Your task to perform on an android device: Open network settings Image 0: 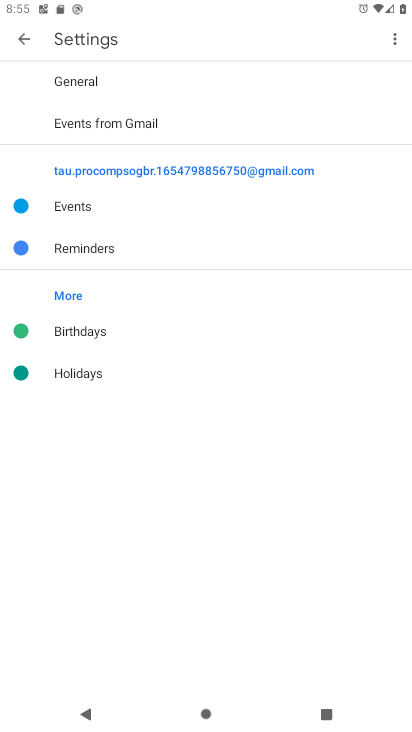
Step 0: press home button
Your task to perform on an android device: Open network settings Image 1: 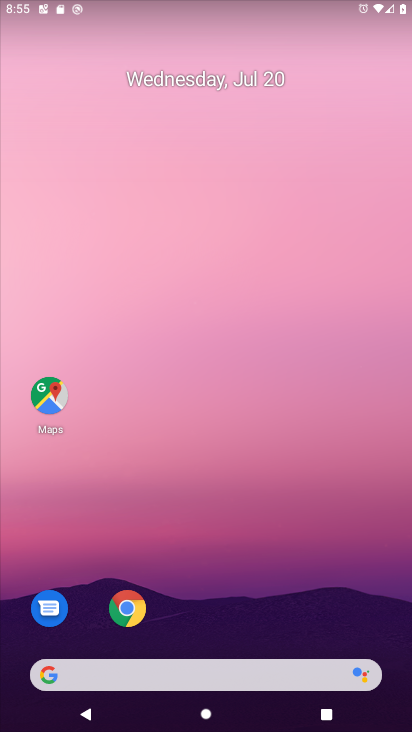
Step 1: drag from (205, 638) to (231, 295)
Your task to perform on an android device: Open network settings Image 2: 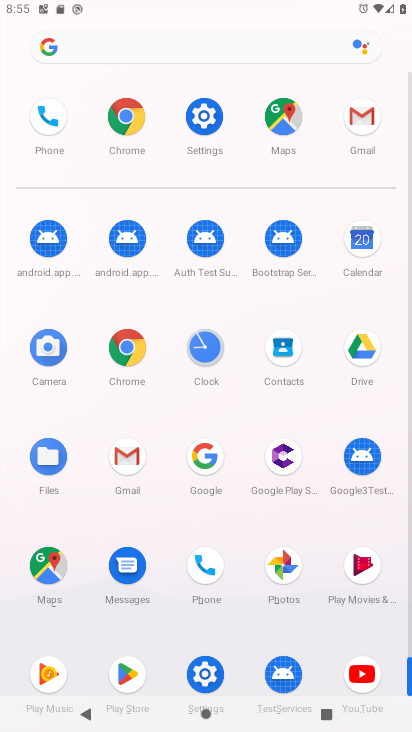
Step 2: click (215, 113)
Your task to perform on an android device: Open network settings Image 3: 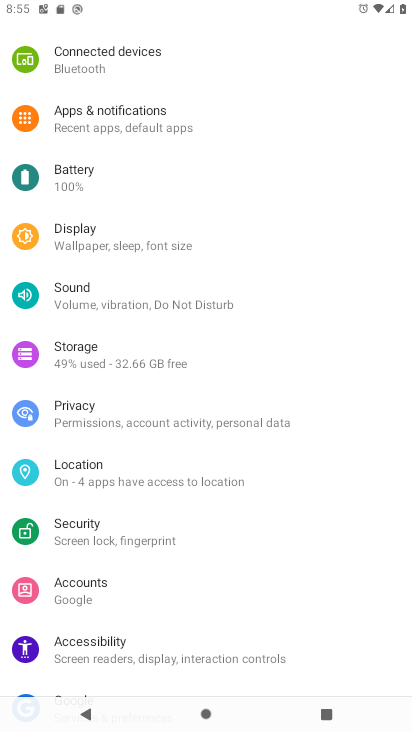
Step 3: drag from (133, 73) to (112, 499)
Your task to perform on an android device: Open network settings Image 4: 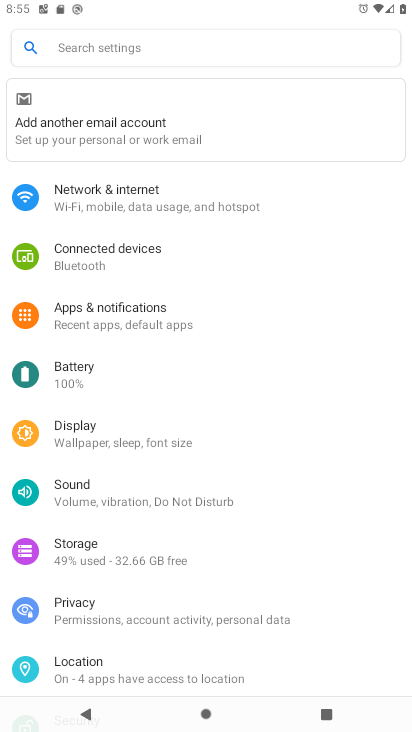
Step 4: click (140, 185)
Your task to perform on an android device: Open network settings Image 5: 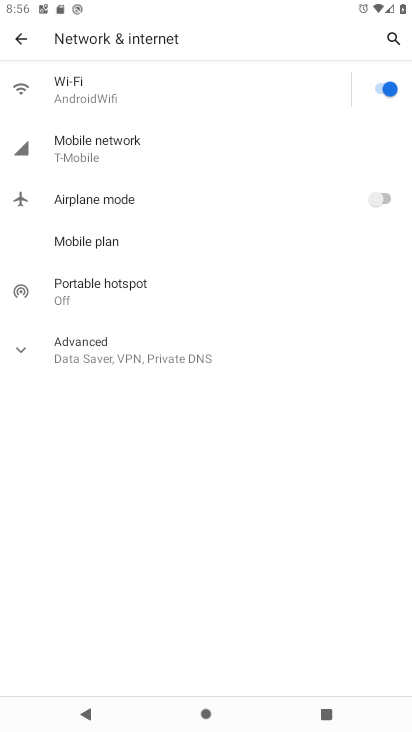
Step 5: task complete